Your task to perform on an android device: Go to Google maps Image 0: 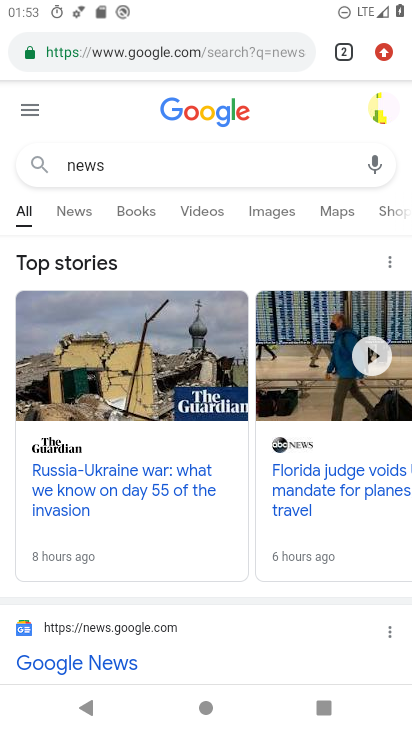
Step 0: press home button
Your task to perform on an android device: Go to Google maps Image 1: 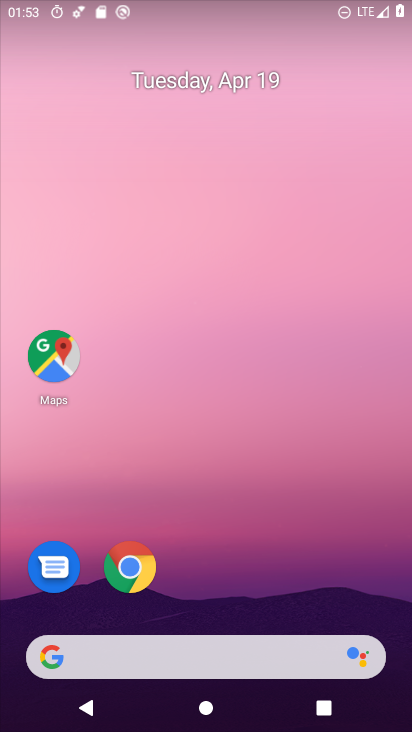
Step 1: click (48, 352)
Your task to perform on an android device: Go to Google maps Image 2: 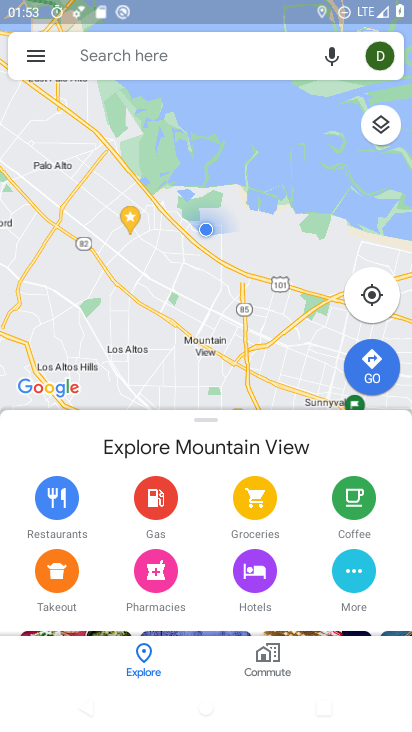
Step 2: task complete